Your task to perform on an android device: Open internet settings Image 0: 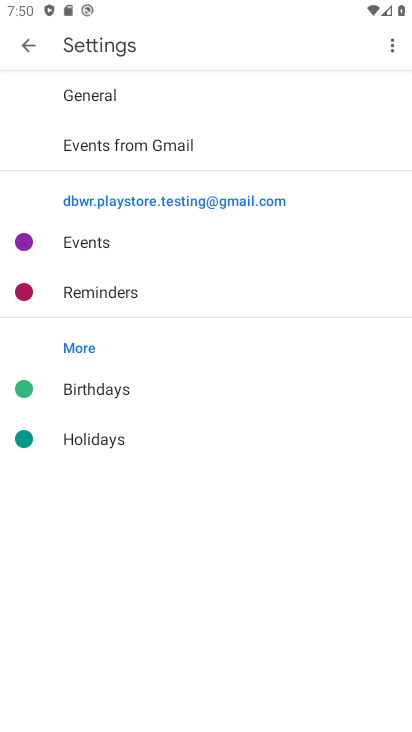
Step 0: press home button
Your task to perform on an android device: Open internet settings Image 1: 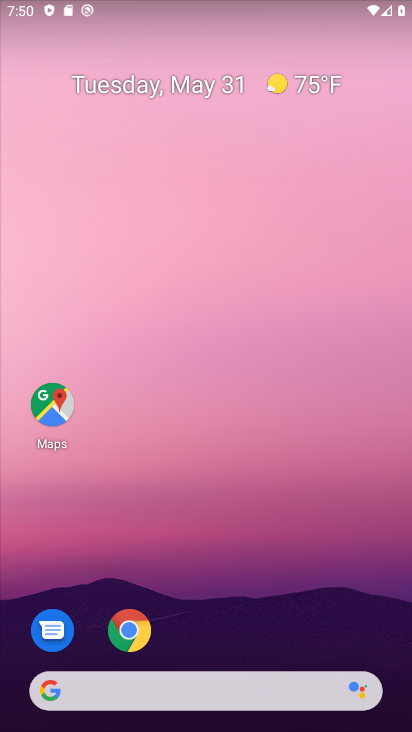
Step 1: drag from (257, 645) to (324, 194)
Your task to perform on an android device: Open internet settings Image 2: 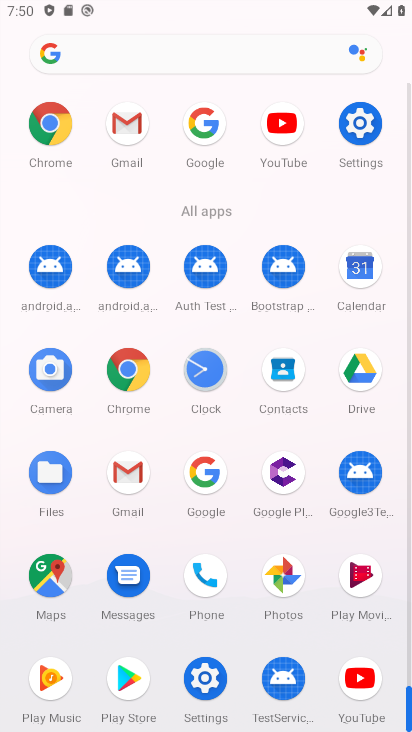
Step 2: click (364, 146)
Your task to perform on an android device: Open internet settings Image 3: 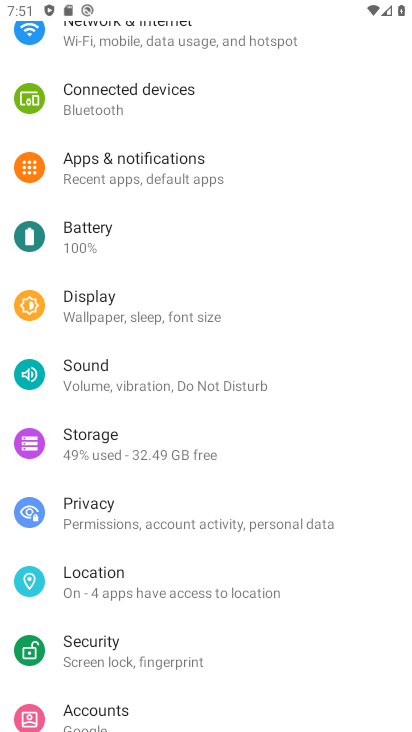
Step 3: drag from (219, 240) to (216, 514)
Your task to perform on an android device: Open internet settings Image 4: 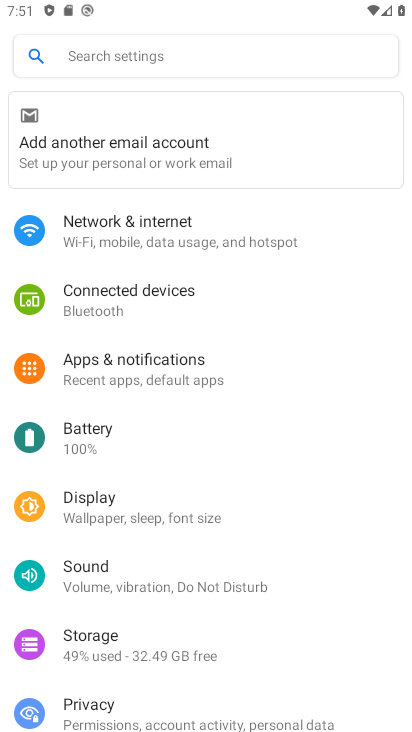
Step 4: drag from (246, 291) to (180, 532)
Your task to perform on an android device: Open internet settings Image 5: 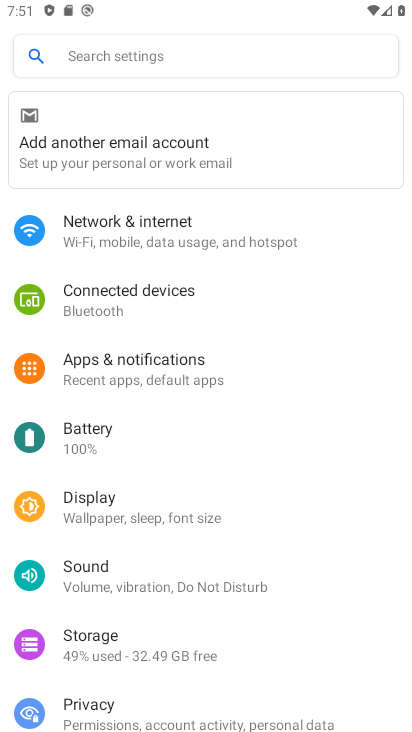
Step 5: click (211, 238)
Your task to perform on an android device: Open internet settings Image 6: 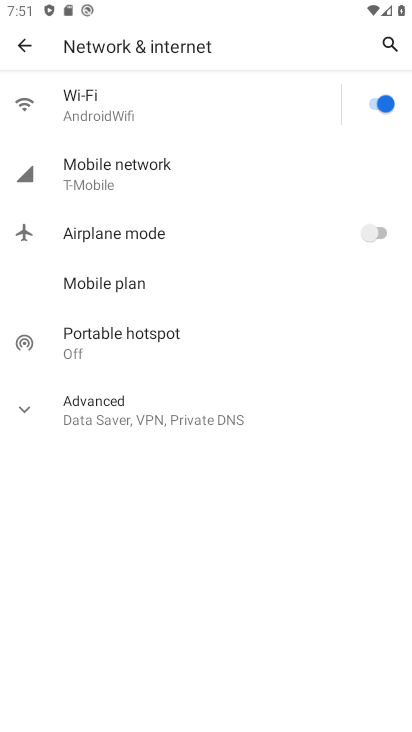
Step 6: click (166, 181)
Your task to perform on an android device: Open internet settings Image 7: 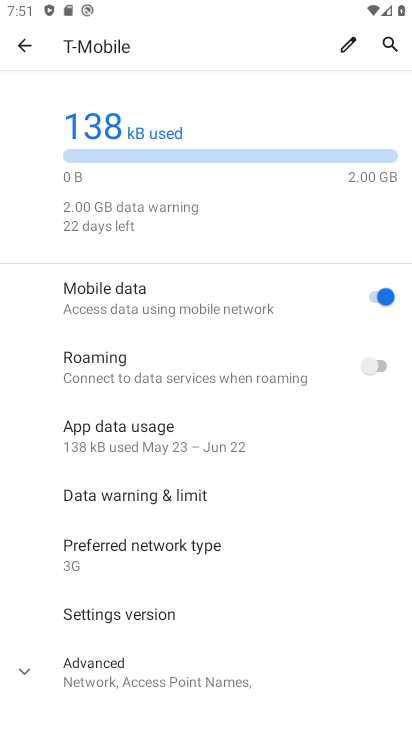
Step 7: task complete